Your task to perform on an android device: toggle javascript in the chrome app Image 0: 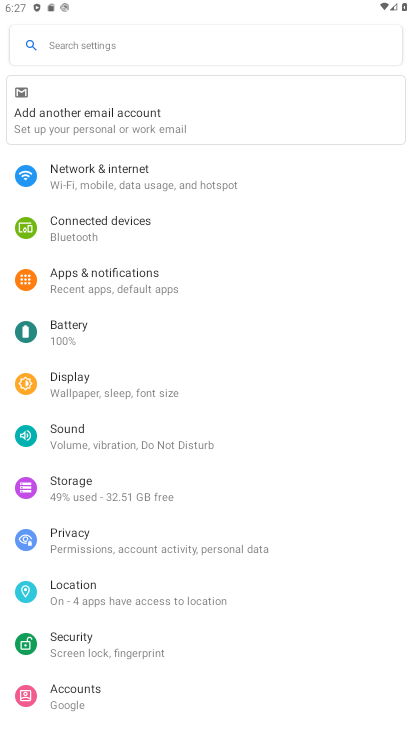
Step 0: press home button
Your task to perform on an android device: toggle javascript in the chrome app Image 1: 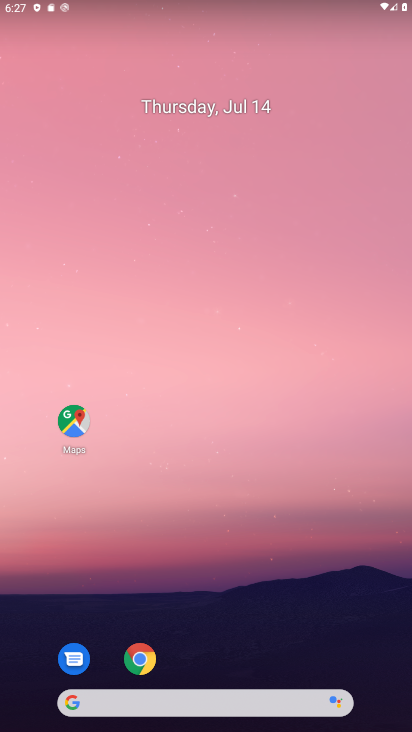
Step 1: drag from (238, 690) to (268, 11)
Your task to perform on an android device: toggle javascript in the chrome app Image 2: 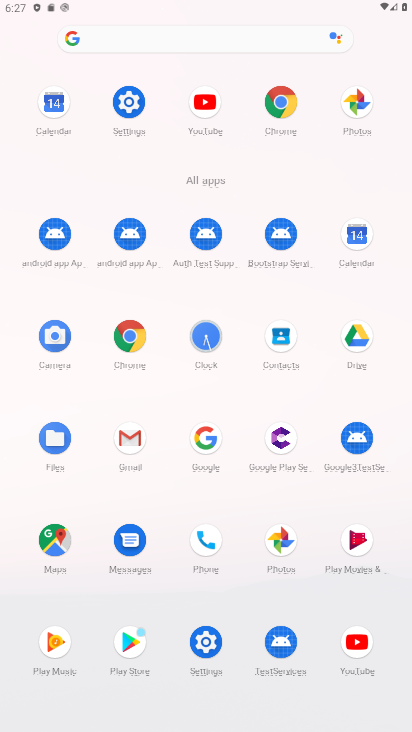
Step 2: click (132, 334)
Your task to perform on an android device: toggle javascript in the chrome app Image 3: 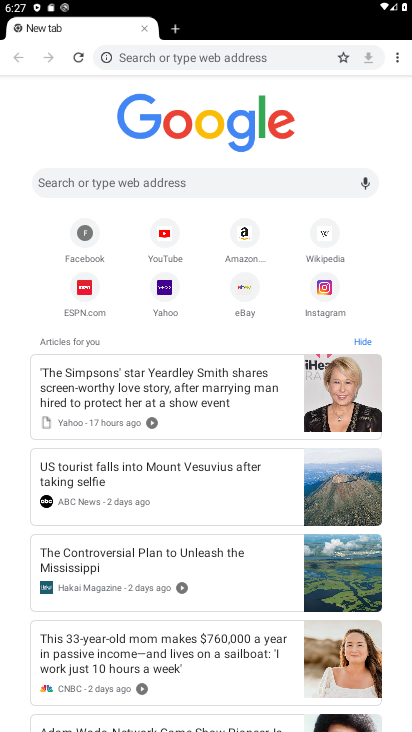
Step 3: click (397, 55)
Your task to perform on an android device: toggle javascript in the chrome app Image 4: 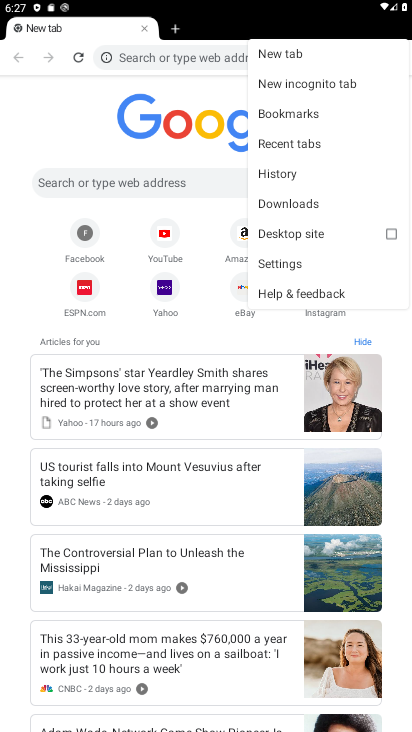
Step 4: click (299, 262)
Your task to perform on an android device: toggle javascript in the chrome app Image 5: 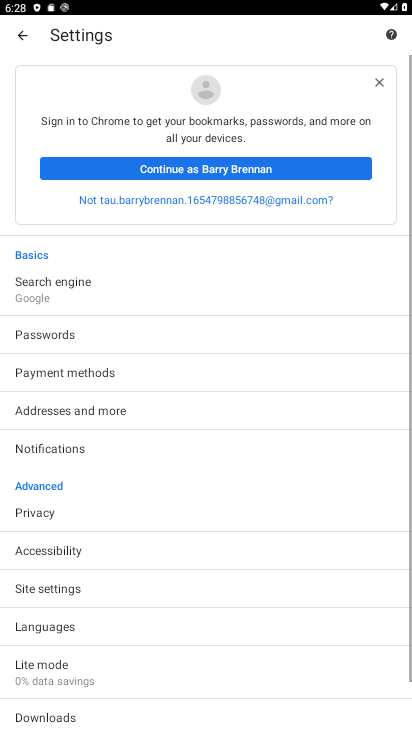
Step 5: click (51, 578)
Your task to perform on an android device: toggle javascript in the chrome app Image 6: 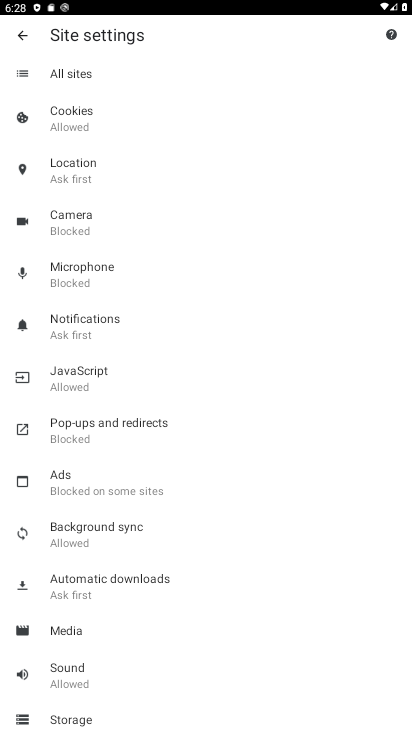
Step 6: click (85, 374)
Your task to perform on an android device: toggle javascript in the chrome app Image 7: 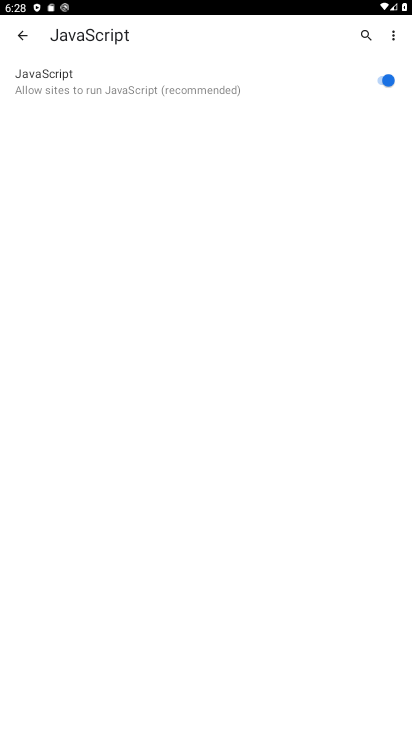
Step 7: click (388, 81)
Your task to perform on an android device: toggle javascript in the chrome app Image 8: 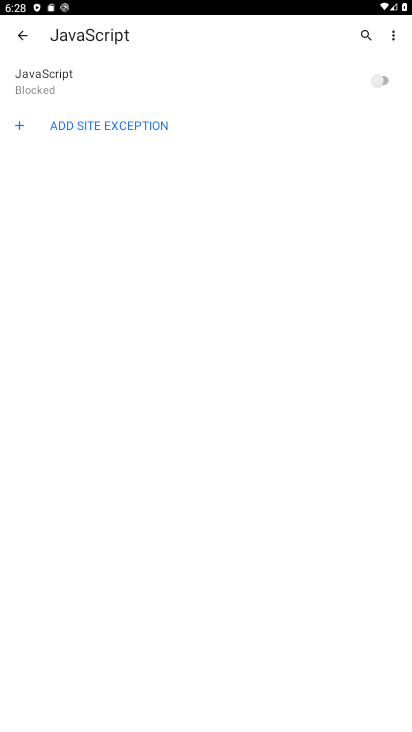
Step 8: task complete